Your task to perform on an android device: clear all cookies in the chrome app Image 0: 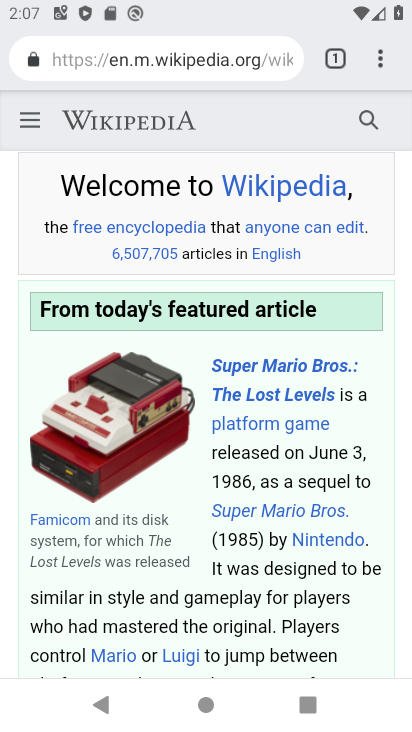
Step 0: press home button
Your task to perform on an android device: clear all cookies in the chrome app Image 1: 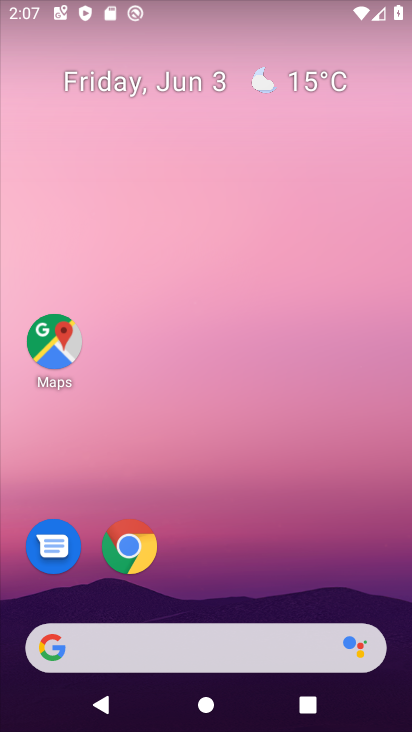
Step 1: drag from (356, 354) to (301, 25)
Your task to perform on an android device: clear all cookies in the chrome app Image 2: 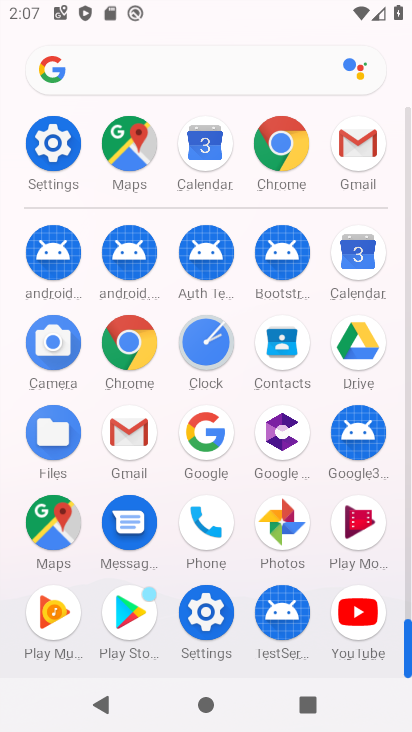
Step 2: click (279, 143)
Your task to perform on an android device: clear all cookies in the chrome app Image 3: 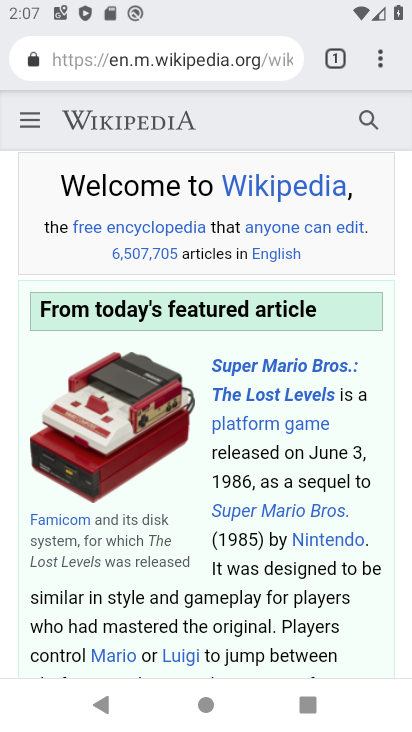
Step 3: drag from (379, 62) to (172, 327)
Your task to perform on an android device: clear all cookies in the chrome app Image 4: 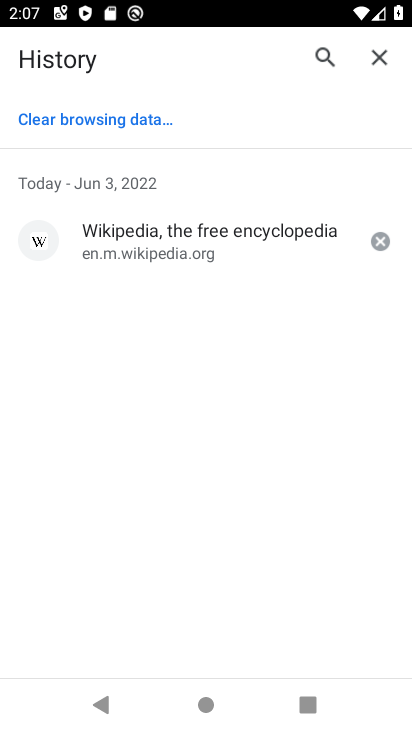
Step 4: click (93, 112)
Your task to perform on an android device: clear all cookies in the chrome app Image 5: 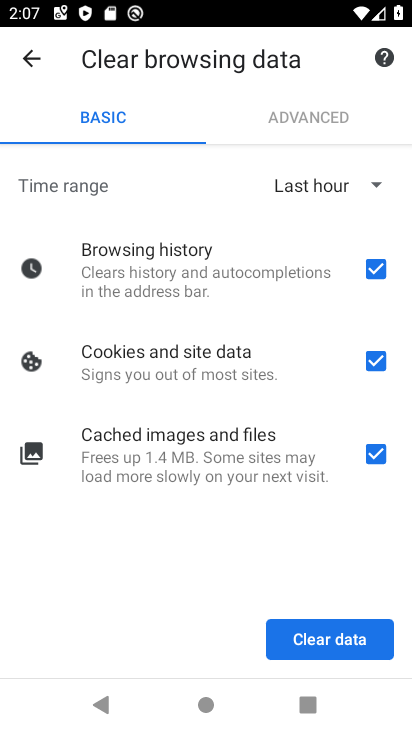
Step 5: click (380, 451)
Your task to perform on an android device: clear all cookies in the chrome app Image 6: 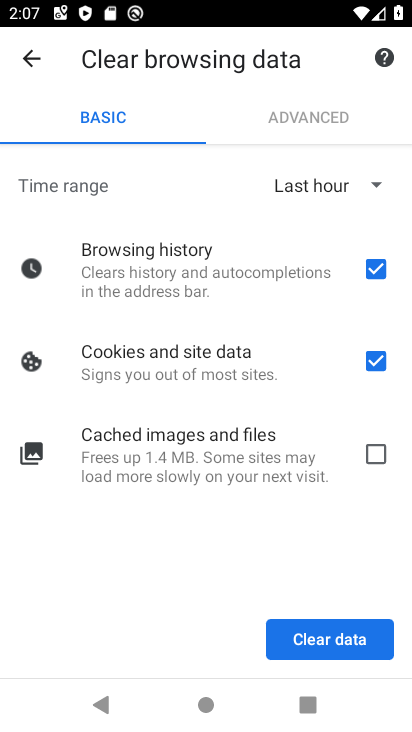
Step 6: click (380, 271)
Your task to perform on an android device: clear all cookies in the chrome app Image 7: 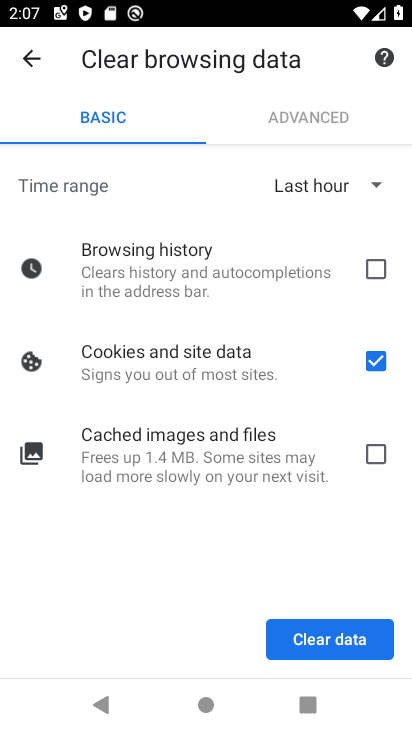
Step 7: click (330, 632)
Your task to perform on an android device: clear all cookies in the chrome app Image 8: 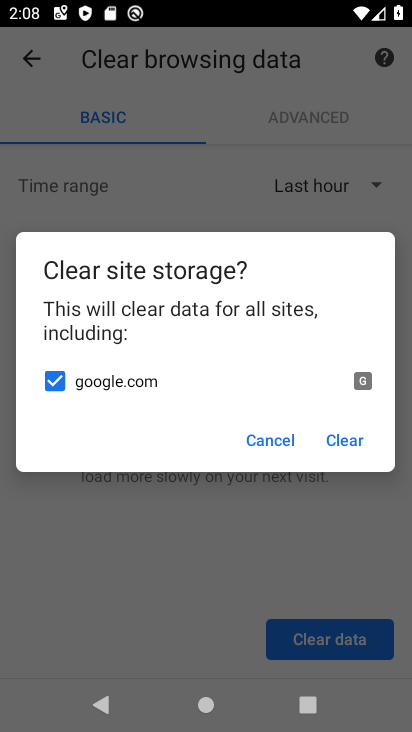
Step 8: click (329, 441)
Your task to perform on an android device: clear all cookies in the chrome app Image 9: 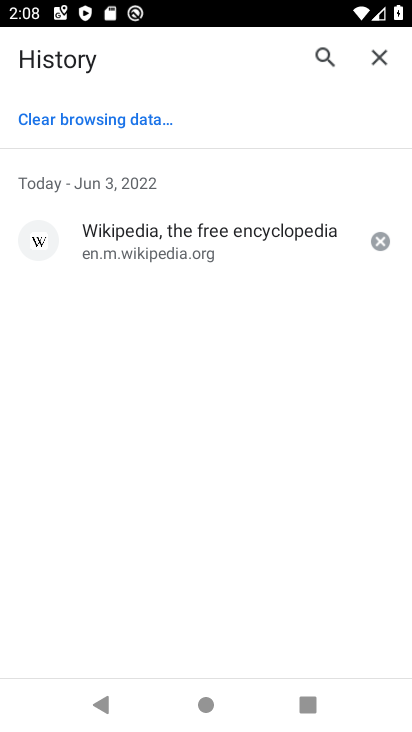
Step 9: task complete